Your task to perform on an android device: toggle pop-ups in chrome Image 0: 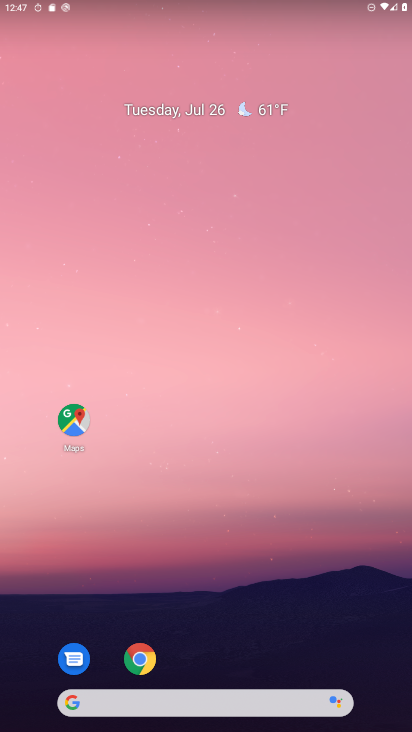
Step 0: click (156, 644)
Your task to perform on an android device: toggle pop-ups in chrome Image 1: 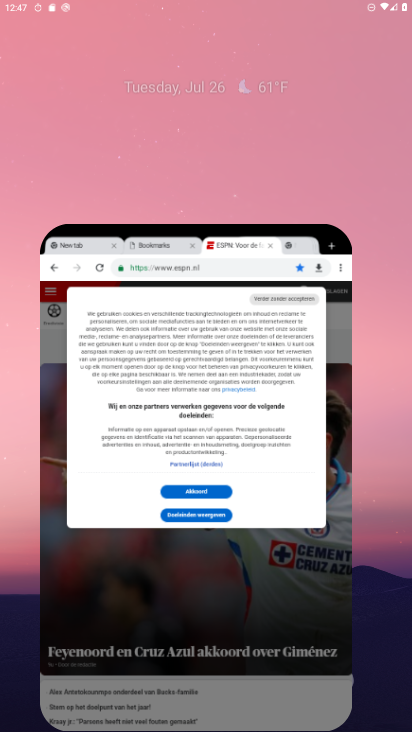
Step 1: click (149, 651)
Your task to perform on an android device: toggle pop-ups in chrome Image 2: 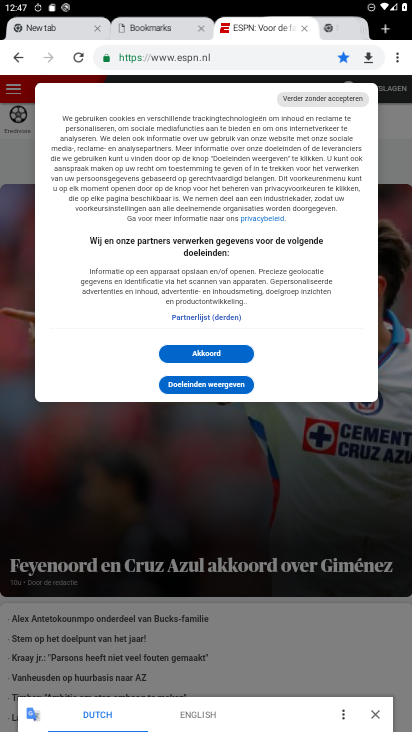
Step 2: click (396, 63)
Your task to perform on an android device: toggle pop-ups in chrome Image 3: 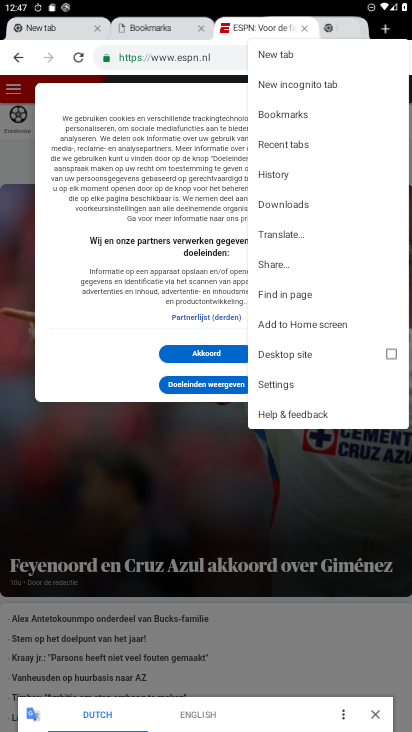
Step 3: click (285, 386)
Your task to perform on an android device: toggle pop-ups in chrome Image 4: 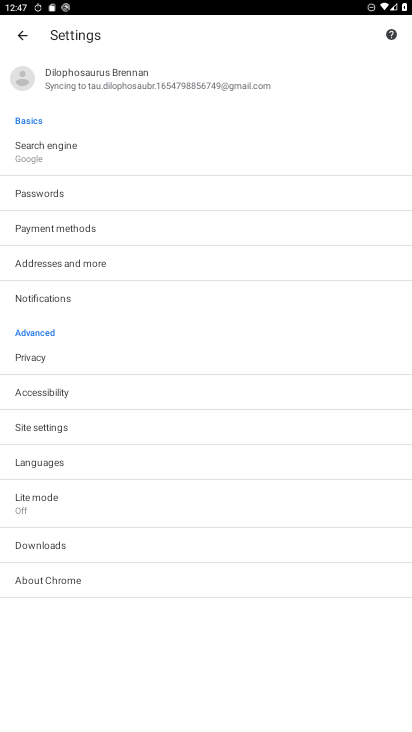
Step 4: click (79, 425)
Your task to perform on an android device: toggle pop-ups in chrome Image 5: 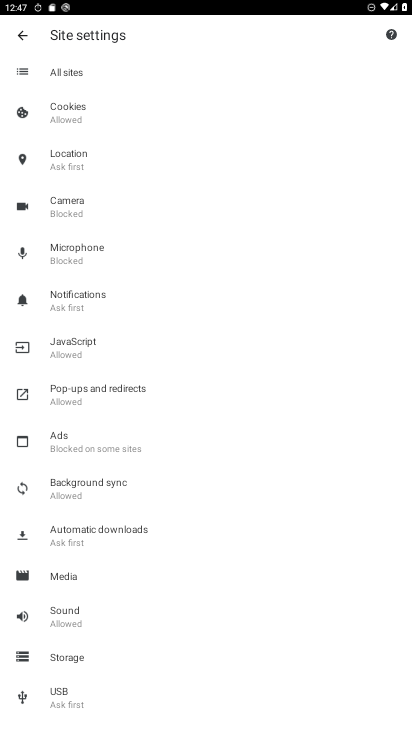
Step 5: click (57, 397)
Your task to perform on an android device: toggle pop-ups in chrome Image 6: 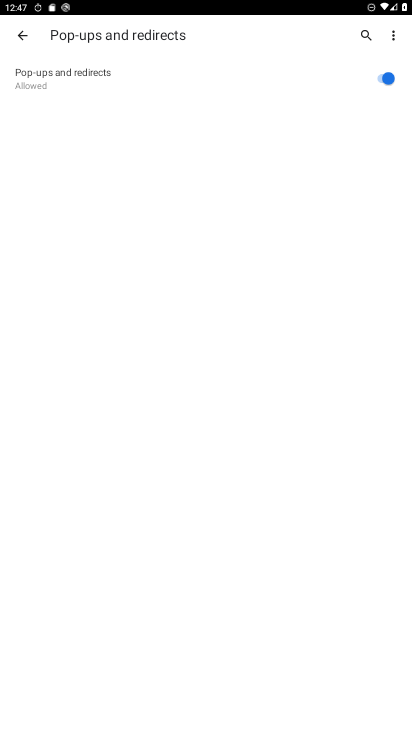
Step 6: task complete